Your task to perform on an android device: Search for Mexican restaurants on Maps Image 0: 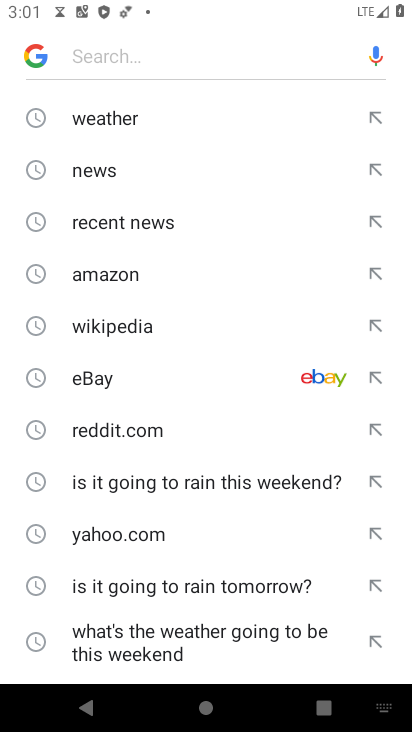
Step 0: press home button
Your task to perform on an android device: Search for Mexican restaurants on Maps Image 1: 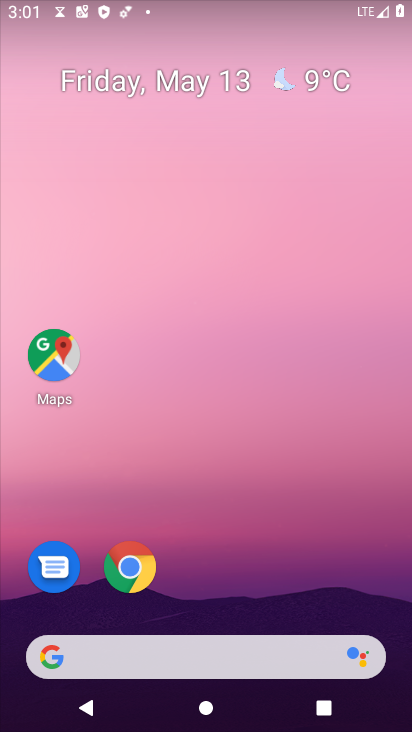
Step 1: click (52, 355)
Your task to perform on an android device: Search for Mexican restaurants on Maps Image 2: 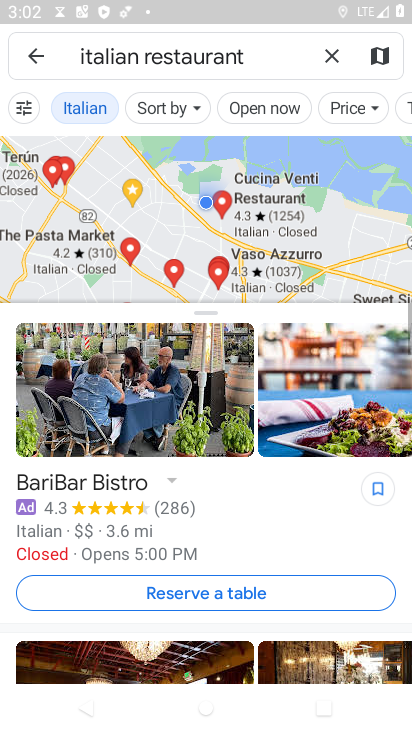
Step 2: click (338, 59)
Your task to perform on an android device: Search for Mexican restaurants on Maps Image 3: 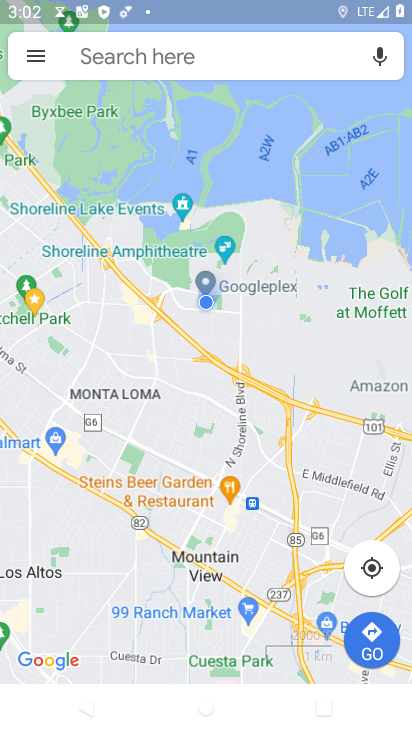
Step 3: click (107, 58)
Your task to perform on an android device: Search for Mexican restaurants on Maps Image 4: 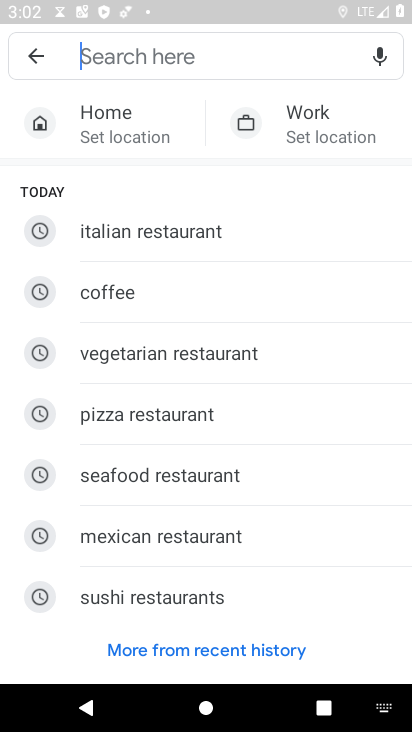
Step 4: type "mexican restaurant"
Your task to perform on an android device: Search for Mexican restaurants on Maps Image 5: 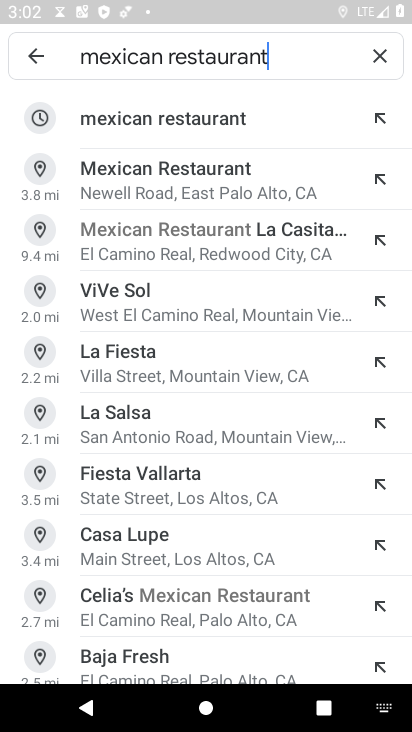
Step 5: click (138, 126)
Your task to perform on an android device: Search for Mexican restaurants on Maps Image 6: 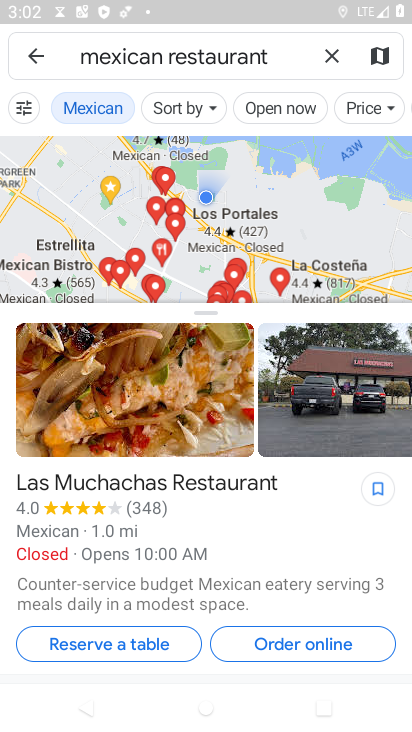
Step 6: task complete